Your task to perform on an android device: add a contact Image 0: 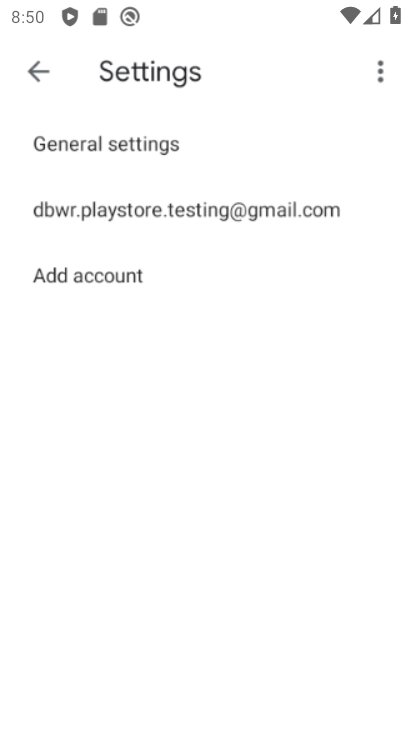
Step 0: press home button
Your task to perform on an android device: add a contact Image 1: 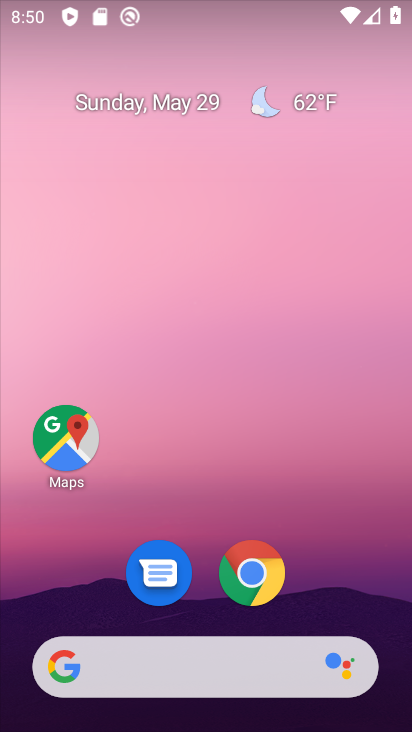
Step 1: drag from (367, 609) to (299, 151)
Your task to perform on an android device: add a contact Image 2: 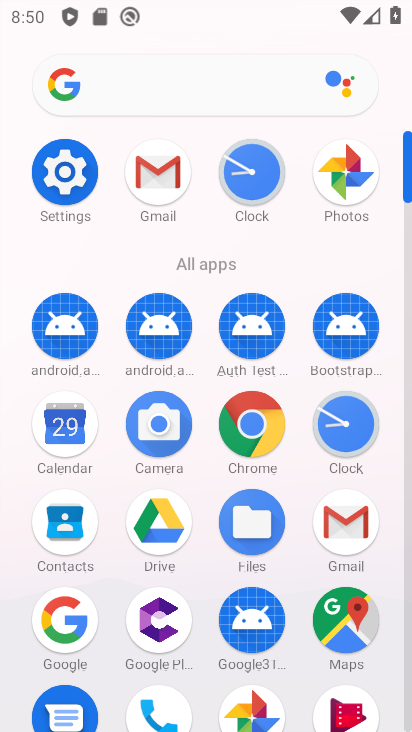
Step 2: click (51, 530)
Your task to perform on an android device: add a contact Image 3: 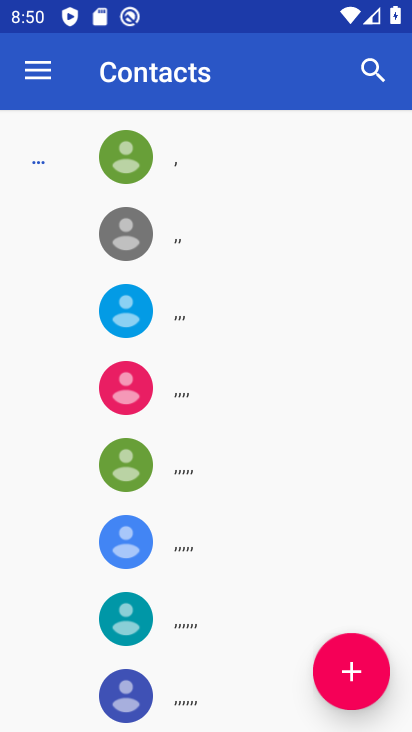
Step 3: click (346, 678)
Your task to perform on an android device: add a contact Image 4: 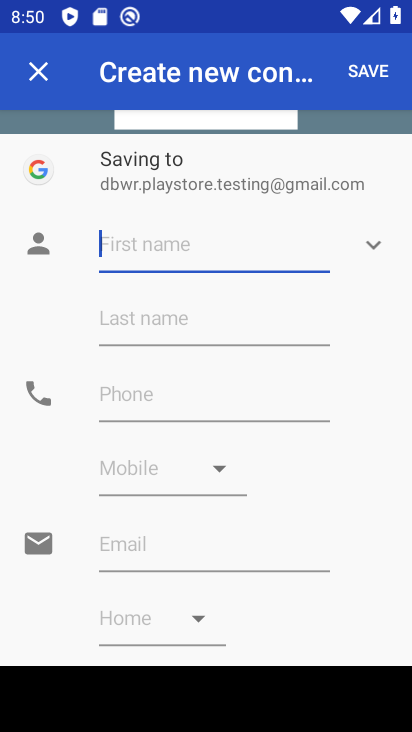
Step 4: click (231, 237)
Your task to perform on an android device: add a contact Image 5: 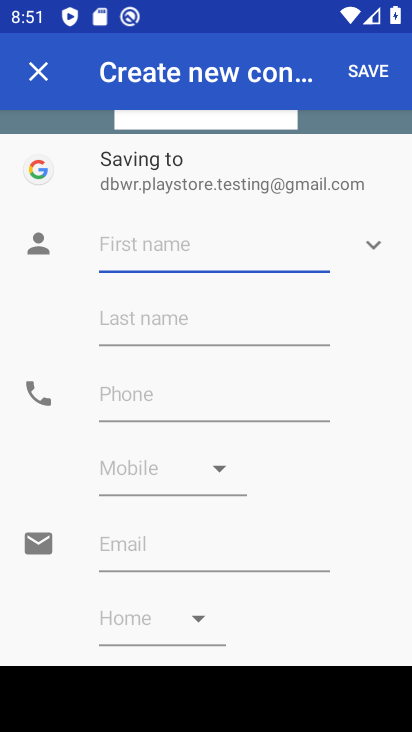
Step 5: type "fhgffgdgdfc"
Your task to perform on an android device: add a contact Image 6: 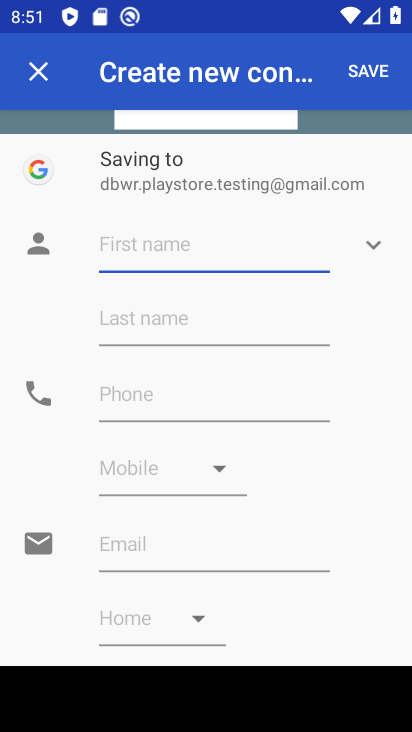
Step 6: click (137, 247)
Your task to perform on an android device: add a contact Image 7: 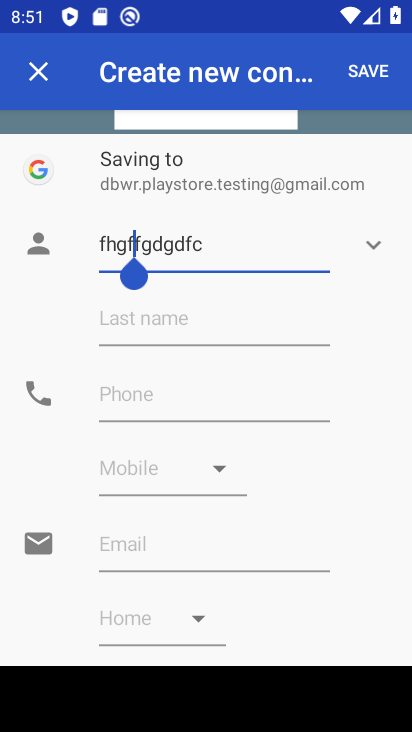
Step 7: click (187, 396)
Your task to perform on an android device: add a contact Image 8: 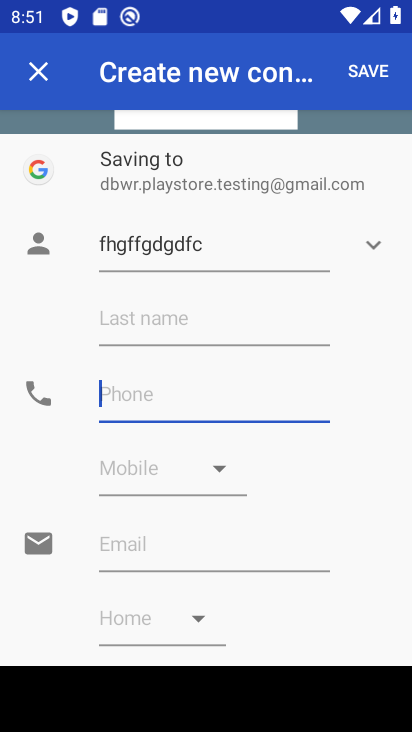
Step 8: type "66446445446"
Your task to perform on an android device: add a contact Image 9: 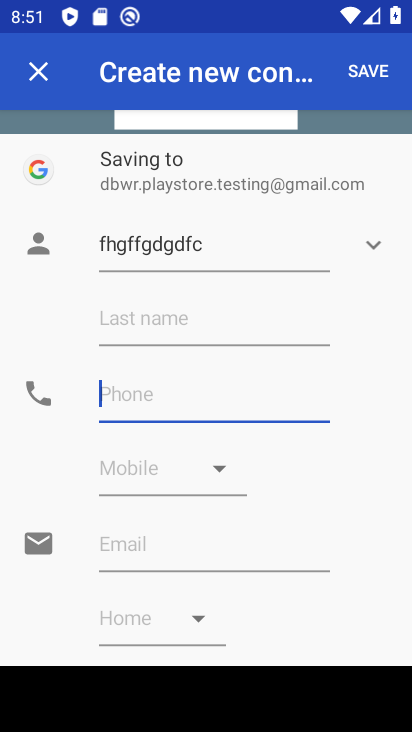
Step 9: click (369, 71)
Your task to perform on an android device: add a contact Image 10: 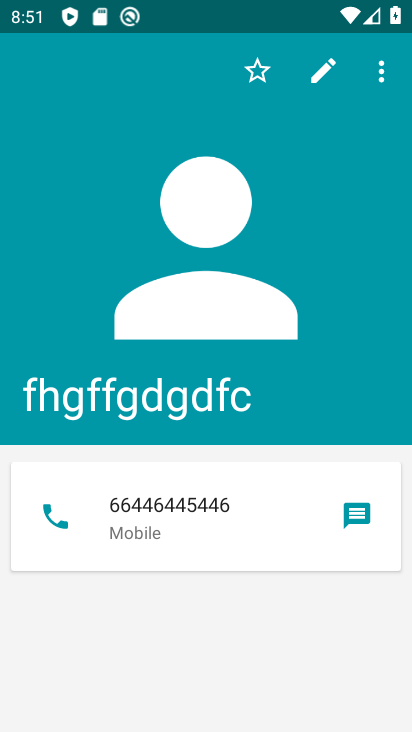
Step 10: task complete